Your task to perform on an android device: open device folders in google photos Image 0: 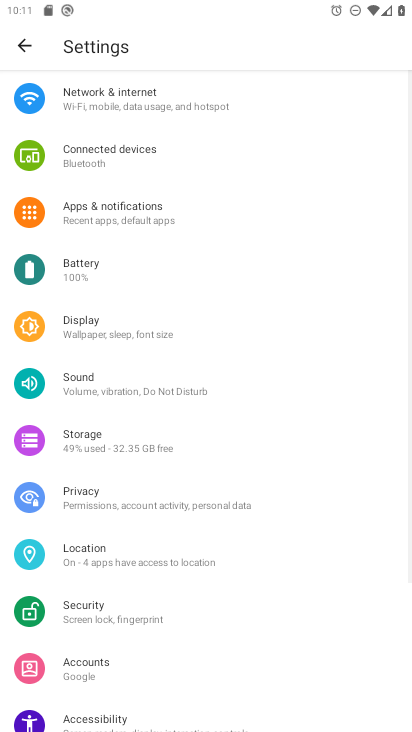
Step 0: press home button
Your task to perform on an android device: open device folders in google photos Image 1: 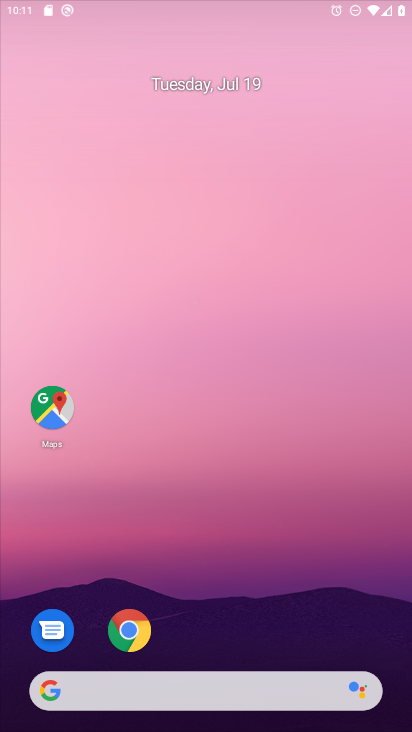
Step 1: drag from (219, 599) to (155, 108)
Your task to perform on an android device: open device folders in google photos Image 2: 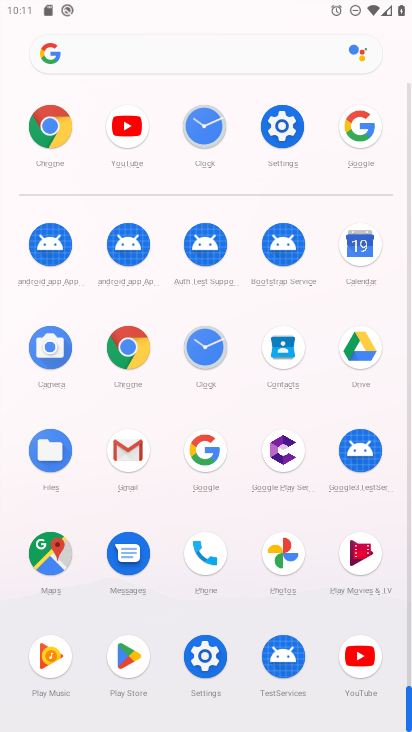
Step 2: drag from (213, 430) to (183, 153)
Your task to perform on an android device: open device folders in google photos Image 3: 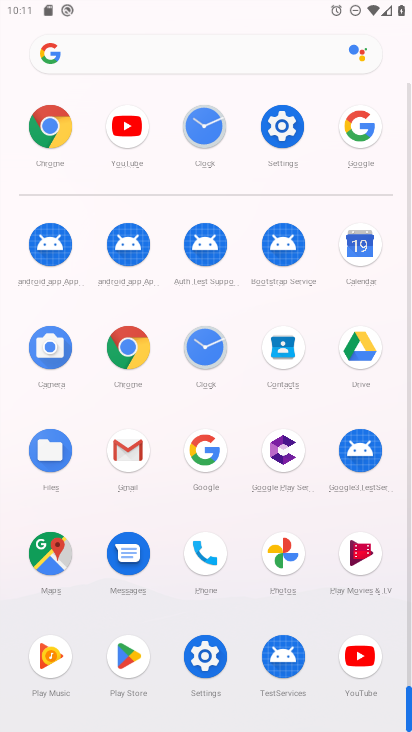
Step 3: click (276, 586)
Your task to perform on an android device: open device folders in google photos Image 4: 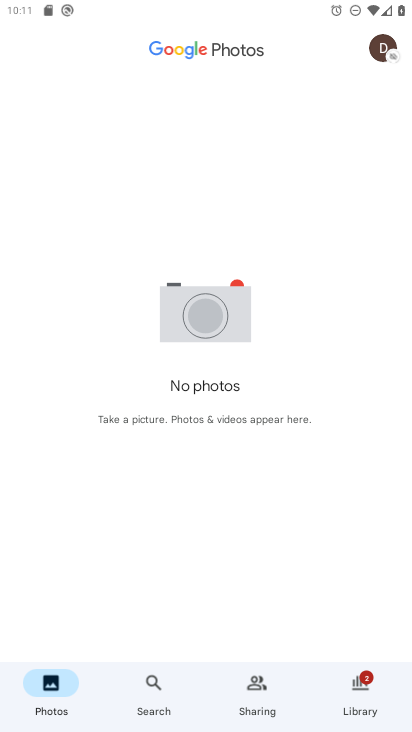
Step 4: click (372, 49)
Your task to perform on an android device: open device folders in google photos Image 5: 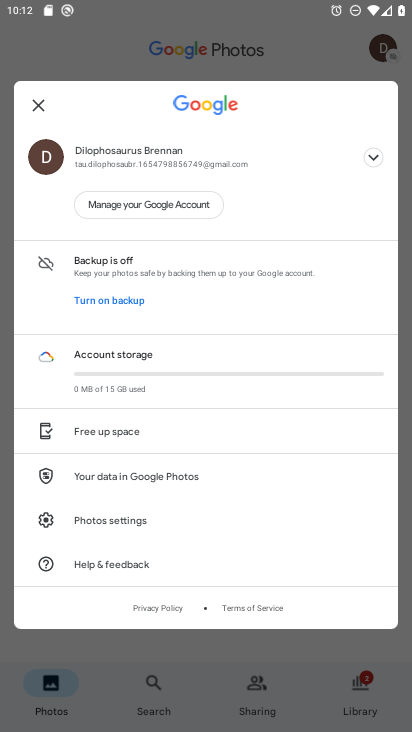
Step 5: task complete